Your task to perform on an android device: Do I have any events tomorrow? Image 0: 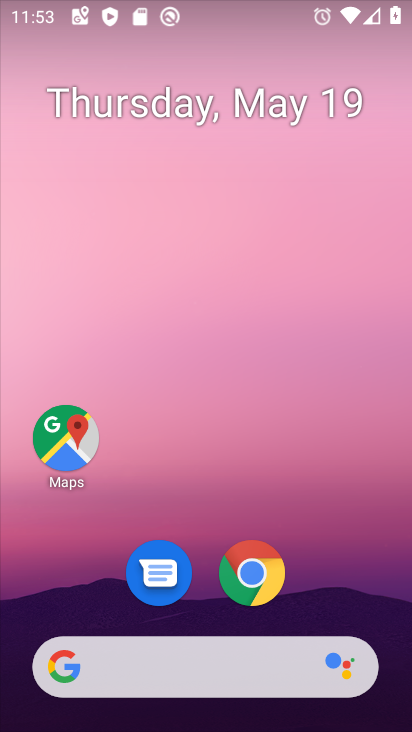
Step 0: drag from (201, 595) to (222, 0)
Your task to perform on an android device: Do I have any events tomorrow? Image 1: 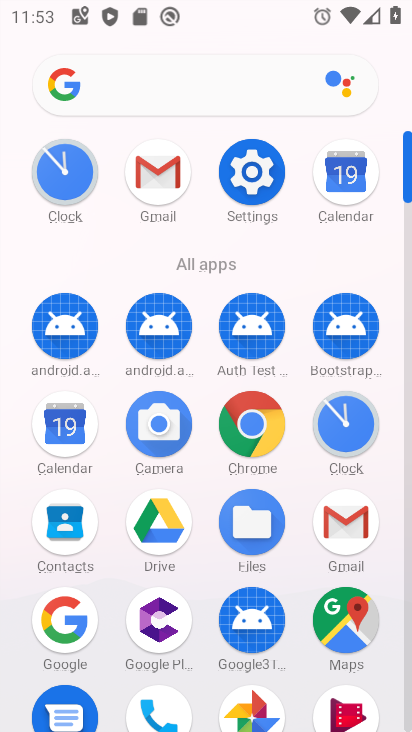
Step 1: click (61, 454)
Your task to perform on an android device: Do I have any events tomorrow? Image 2: 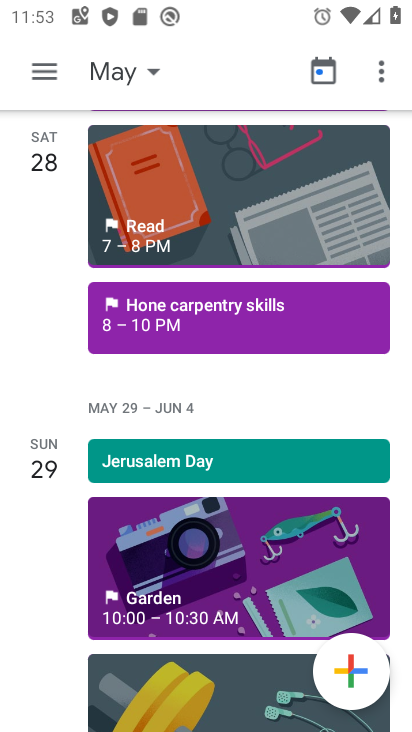
Step 2: click (43, 70)
Your task to perform on an android device: Do I have any events tomorrow? Image 3: 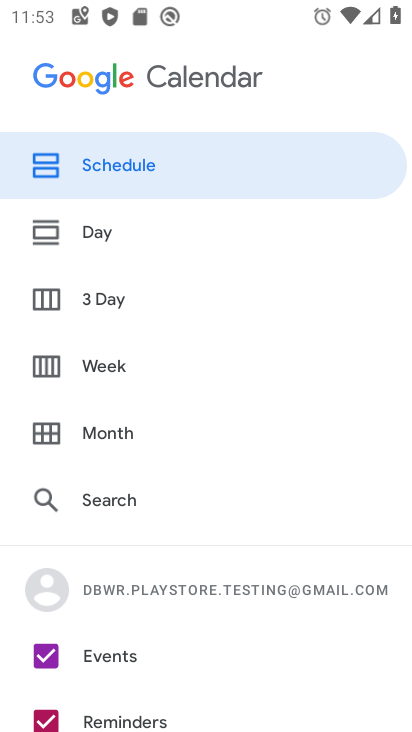
Step 3: drag from (229, 599) to (271, 307)
Your task to perform on an android device: Do I have any events tomorrow? Image 4: 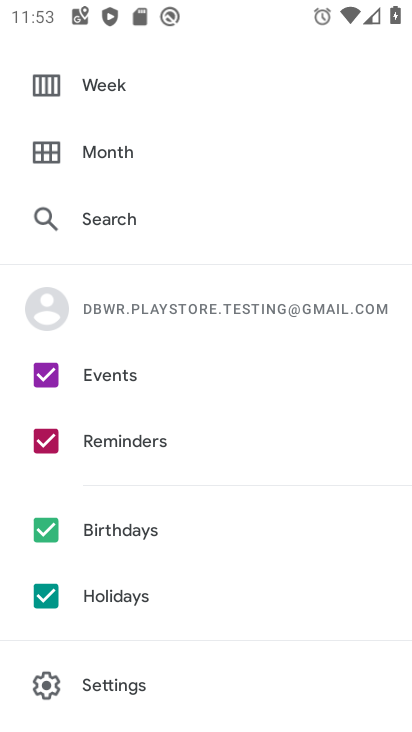
Step 4: click (98, 434)
Your task to perform on an android device: Do I have any events tomorrow? Image 5: 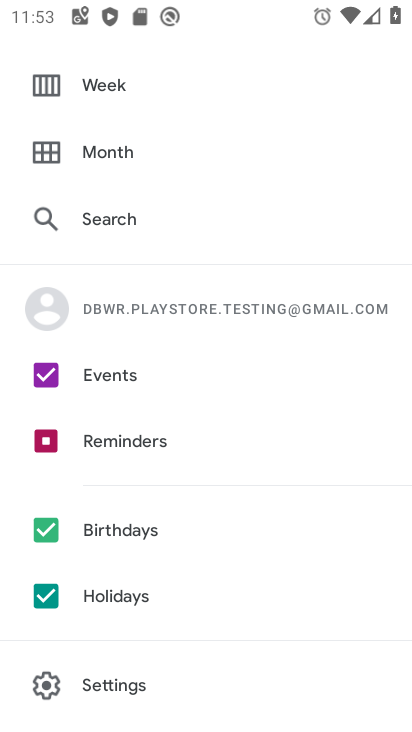
Step 5: click (100, 527)
Your task to perform on an android device: Do I have any events tomorrow? Image 6: 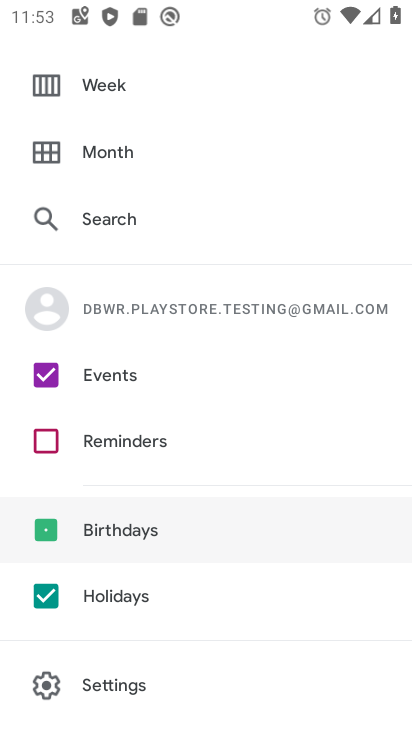
Step 6: click (101, 595)
Your task to perform on an android device: Do I have any events tomorrow? Image 7: 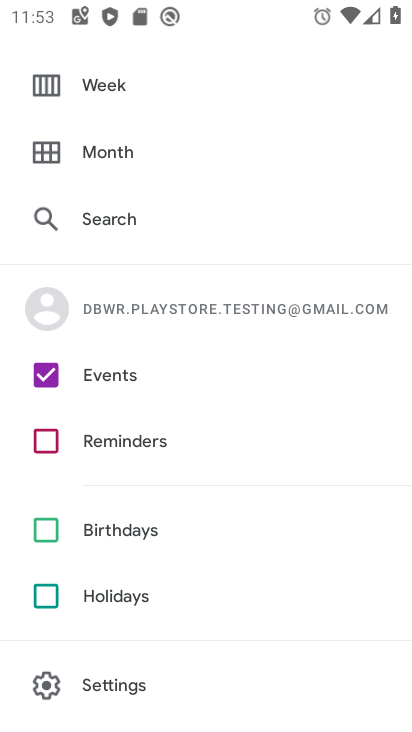
Step 7: click (132, 93)
Your task to perform on an android device: Do I have any events tomorrow? Image 8: 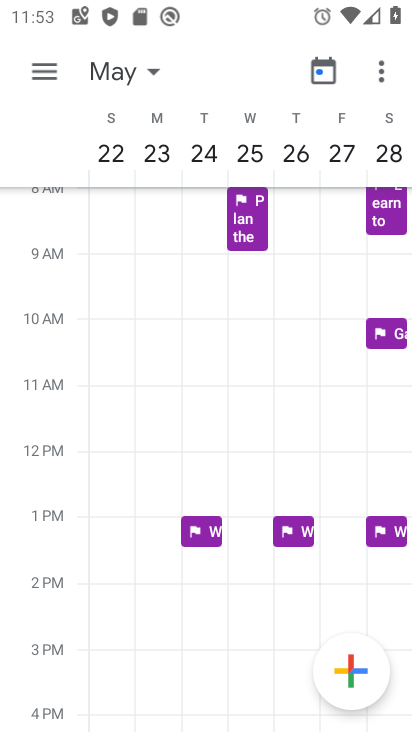
Step 8: click (39, 79)
Your task to perform on an android device: Do I have any events tomorrow? Image 9: 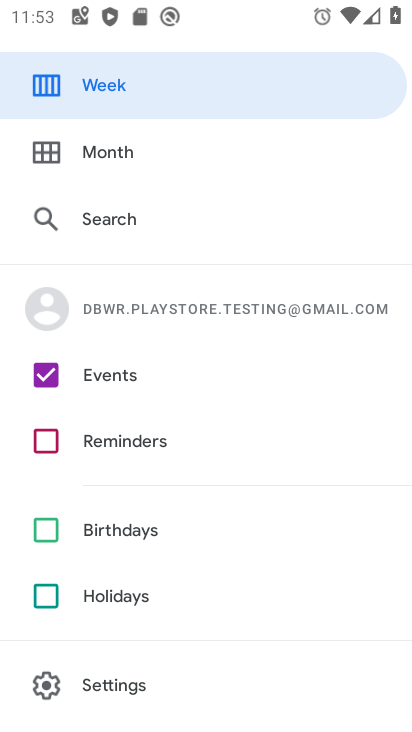
Step 9: drag from (194, 230) to (147, 621)
Your task to perform on an android device: Do I have any events tomorrow? Image 10: 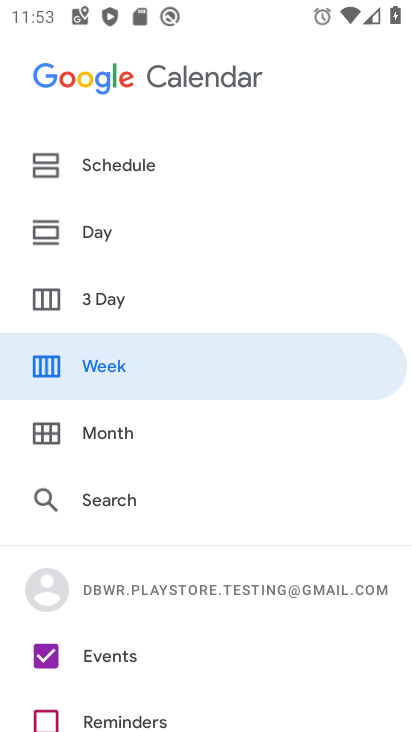
Step 10: click (116, 295)
Your task to perform on an android device: Do I have any events tomorrow? Image 11: 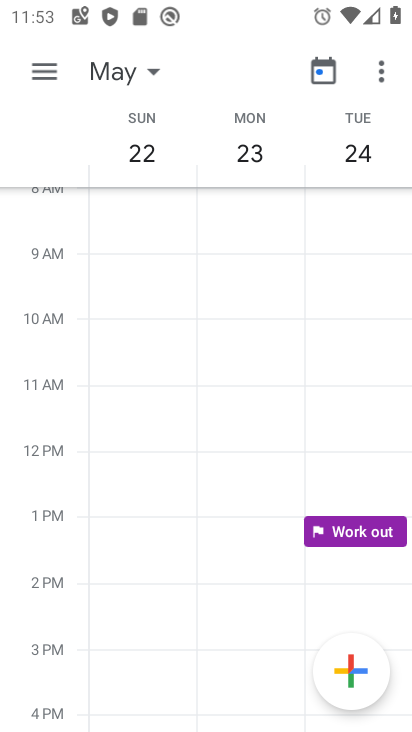
Step 11: task complete